Your task to perform on an android device: turn pop-ups on in chrome Image 0: 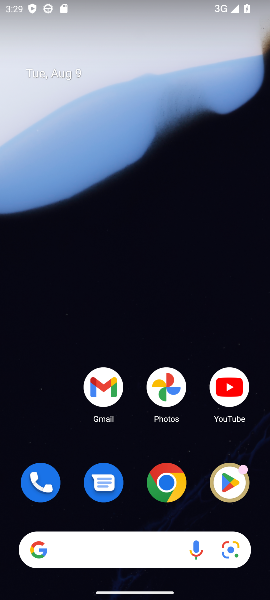
Step 0: click (165, 480)
Your task to perform on an android device: turn pop-ups on in chrome Image 1: 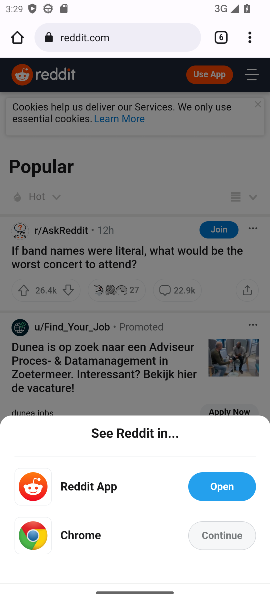
Step 1: click (248, 36)
Your task to perform on an android device: turn pop-ups on in chrome Image 2: 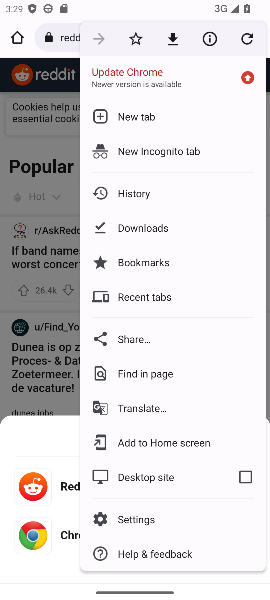
Step 2: click (137, 527)
Your task to perform on an android device: turn pop-ups on in chrome Image 3: 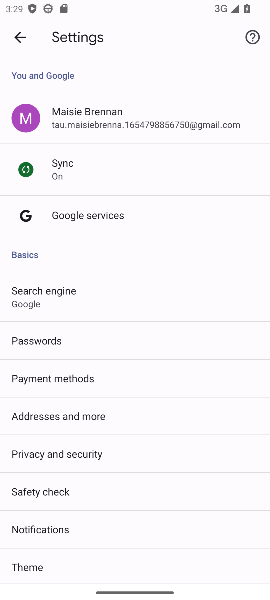
Step 3: drag from (89, 525) to (137, 260)
Your task to perform on an android device: turn pop-ups on in chrome Image 4: 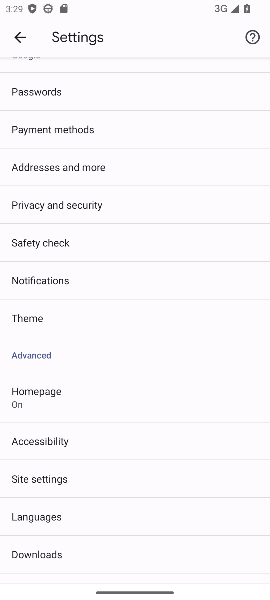
Step 4: drag from (98, 473) to (122, 253)
Your task to perform on an android device: turn pop-ups on in chrome Image 5: 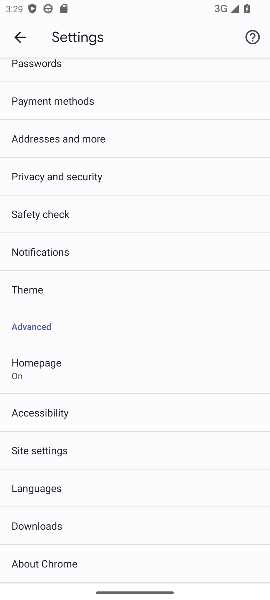
Step 5: click (77, 445)
Your task to perform on an android device: turn pop-ups on in chrome Image 6: 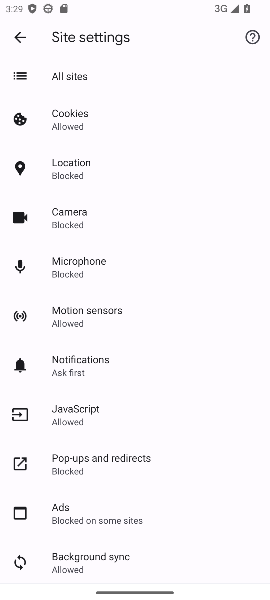
Step 6: click (131, 458)
Your task to perform on an android device: turn pop-ups on in chrome Image 7: 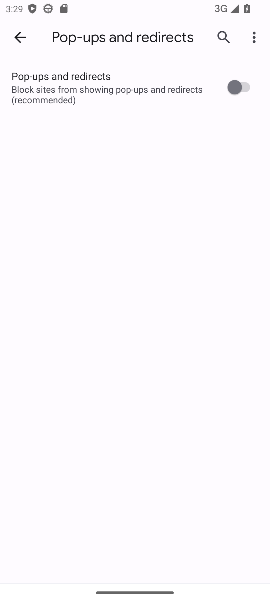
Step 7: click (231, 82)
Your task to perform on an android device: turn pop-ups on in chrome Image 8: 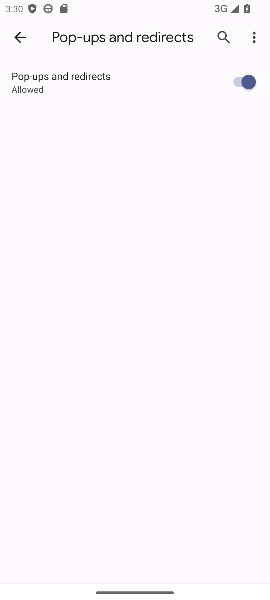
Step 8: task complete